Your task to perform on an android device: Go to ESPN.com Image 0: 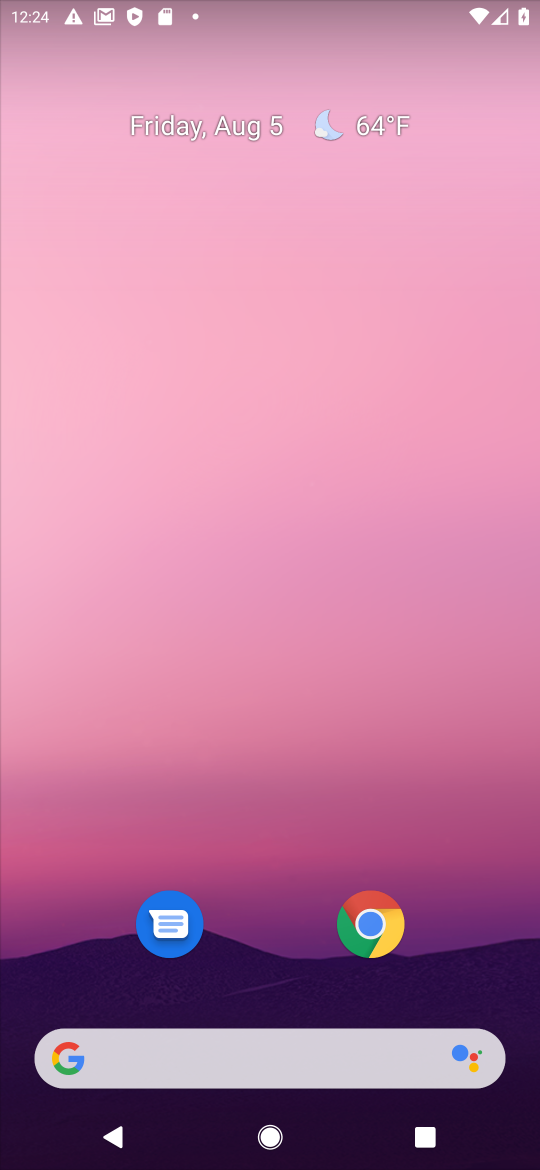
Step 0: press home button
Your task to perform on an android device: Go to ESPN.com Image 1: 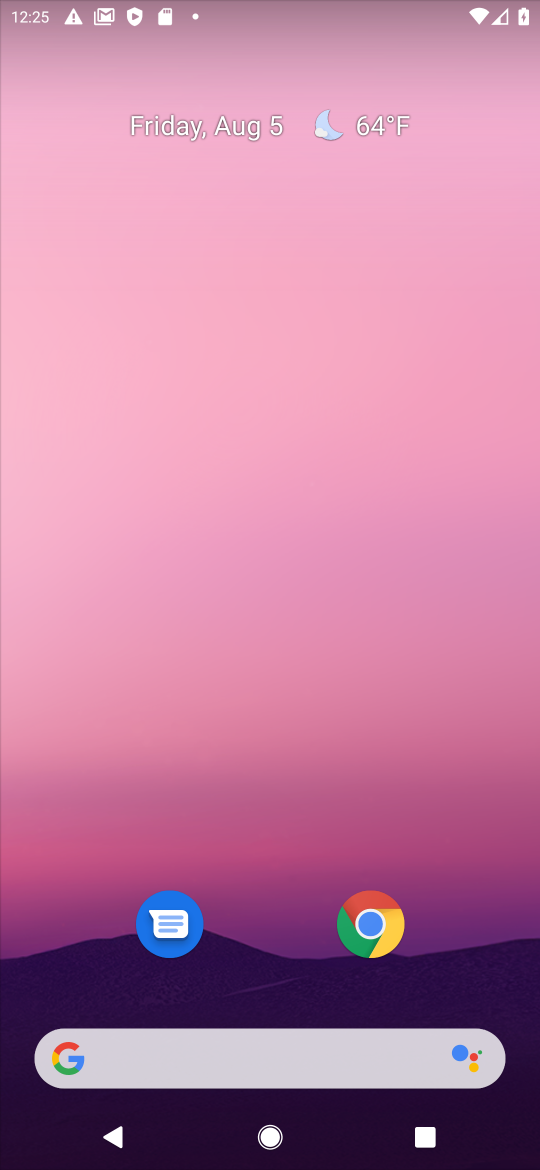
Step 1: click (63, 1048)
Your task to perform on an android device: Go to ESPN.com Image 2: 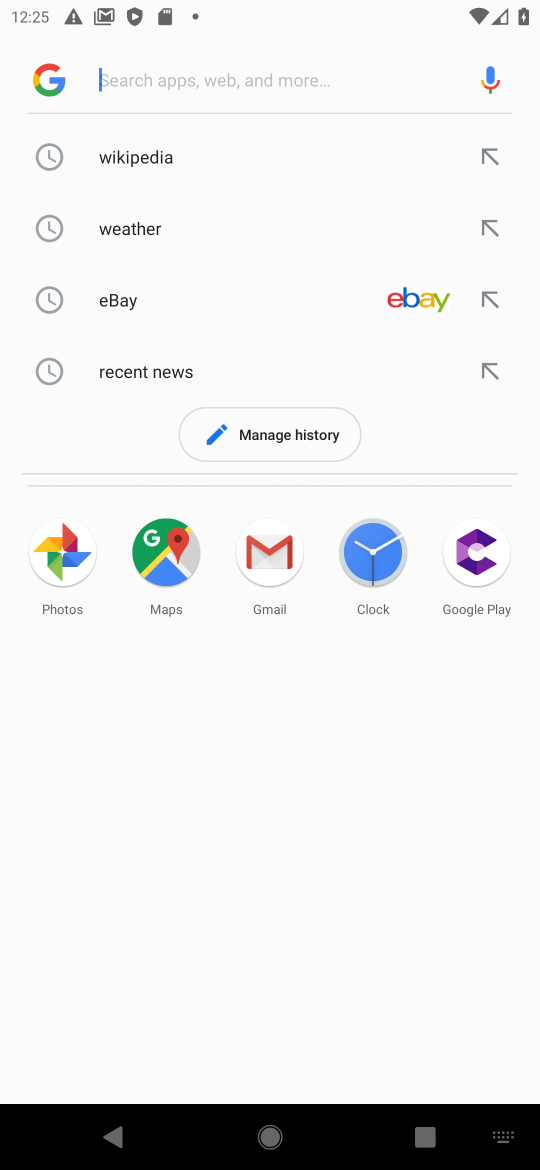
Step 2: type " ESPN.com"
Your task to perform on an android device: Go to ESPN.com Image 3: 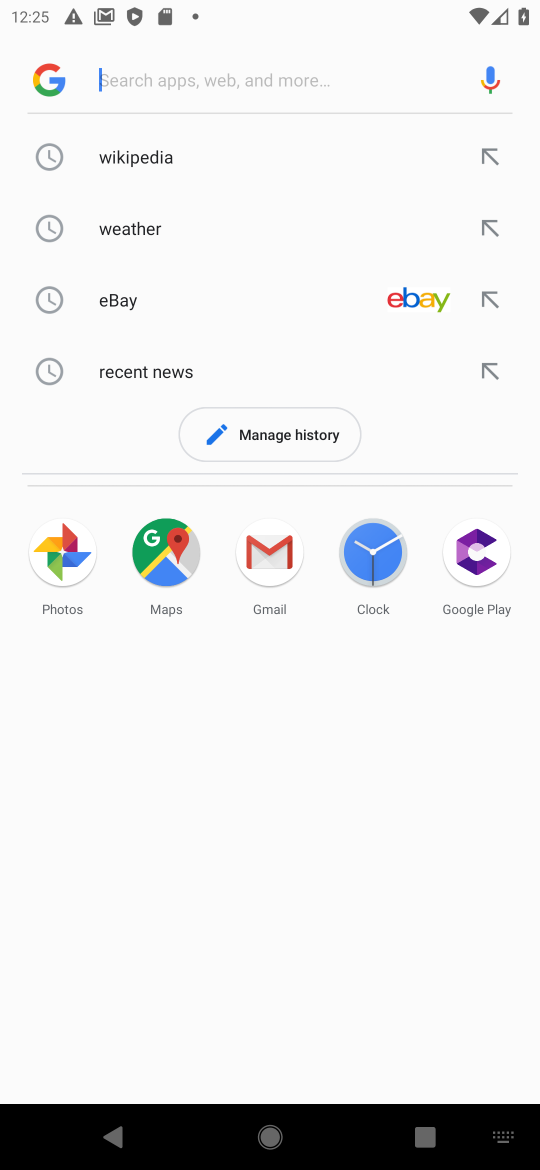
Step 3: click (141, 66)
Your task to perform on an android device: Go to ESPN.com Image 4: 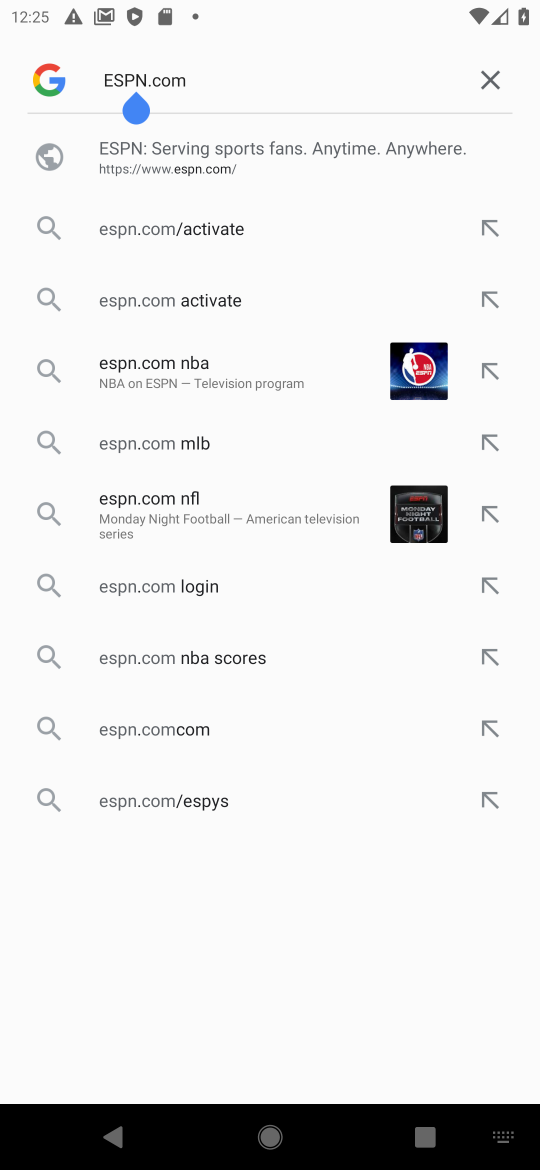
Step 4: press enter
Your task to perform on an android device: Go to ESPN.com Image 5: 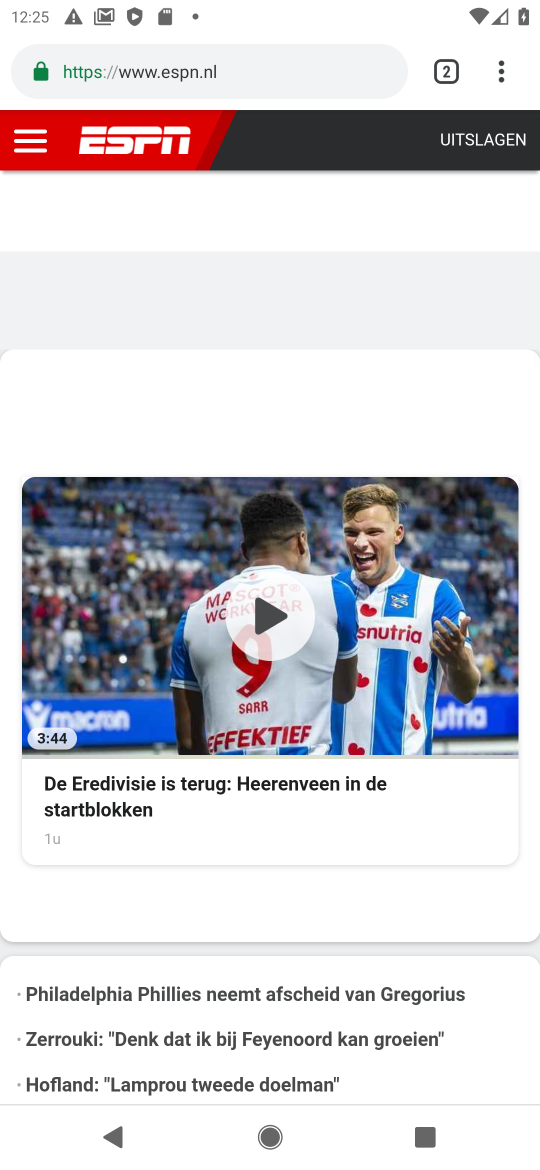
Step 5: task complete